Your task to perform on an android device: check out phone information Image 0: 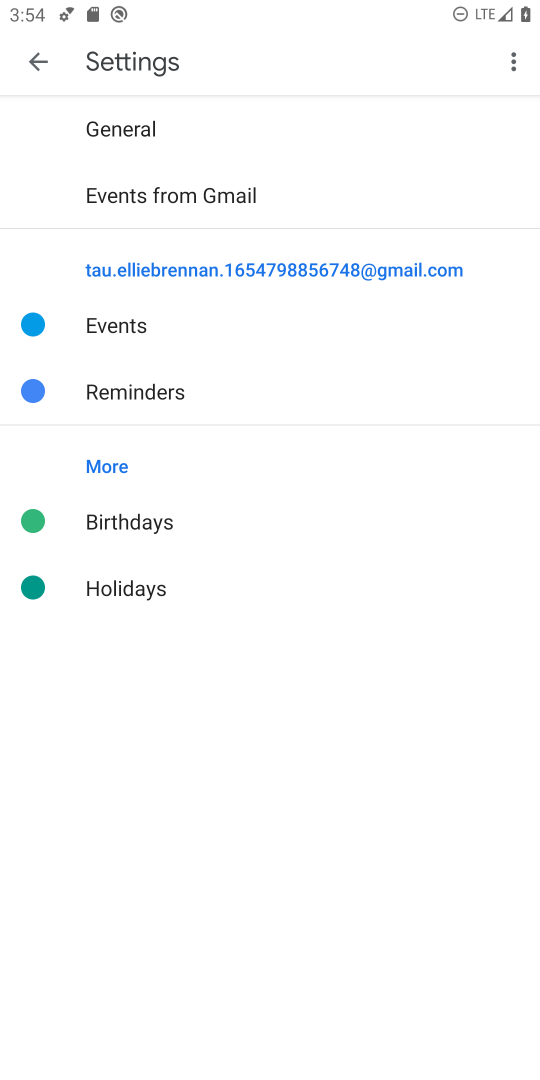
Step 0: press home button
Your task to perform on an android device: check out phone information Image 1: 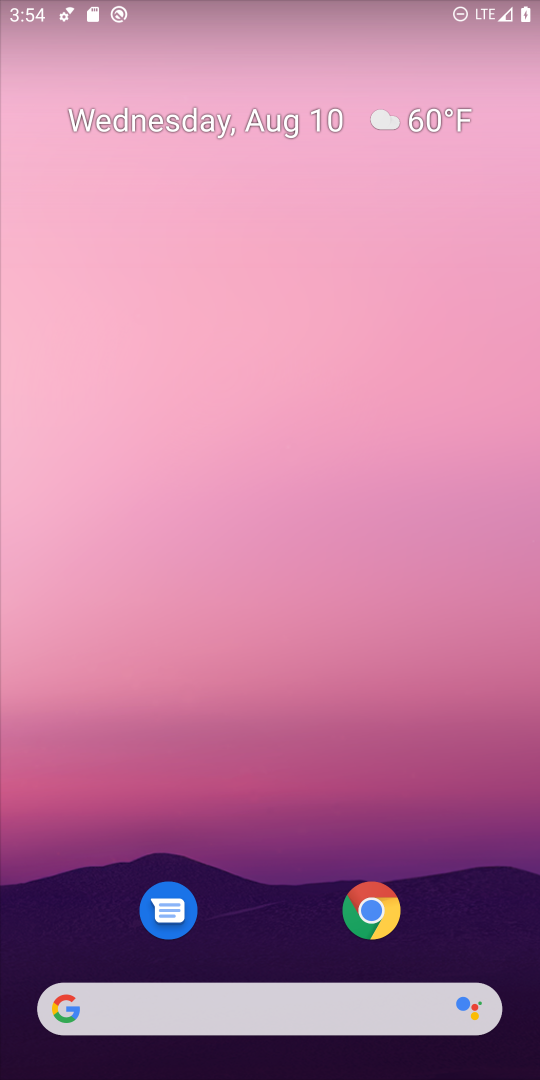
Step 1: drag from (296, 909) to (368, 154)
Your task to perform on an android device: check out phone information Image 2: 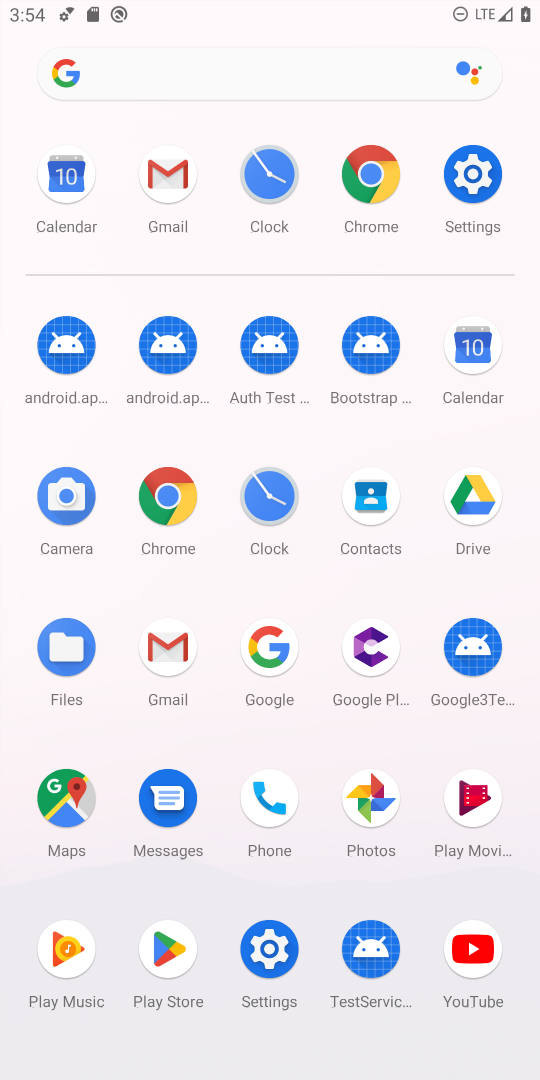
Step 2: click (462, 168)
Your task to perform on an android device: check out phone information Image 3: 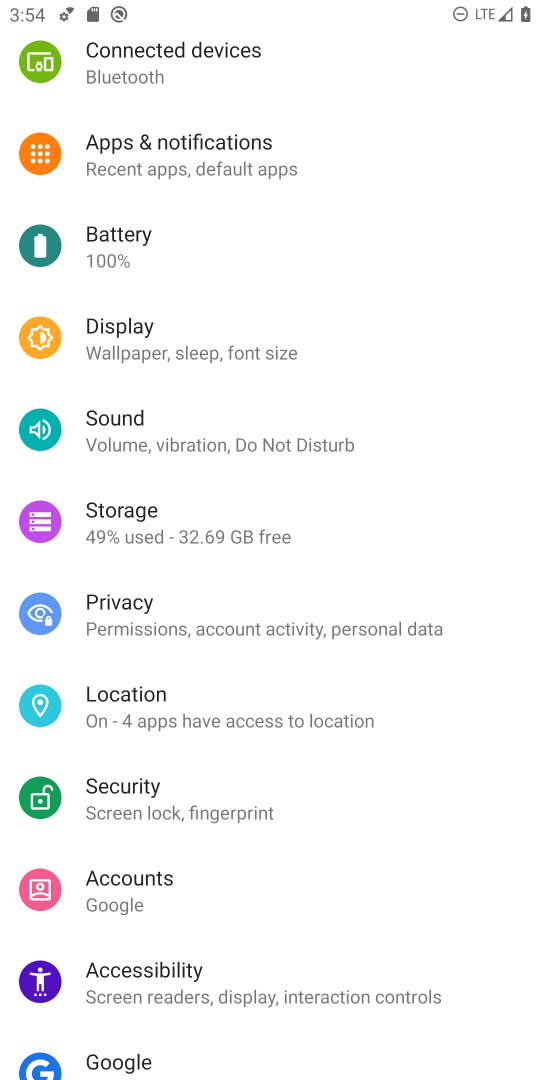
Step 3: drag from (267, 880) to (130, 95)
Your task to perform on an android device: check out phone information Image 4: 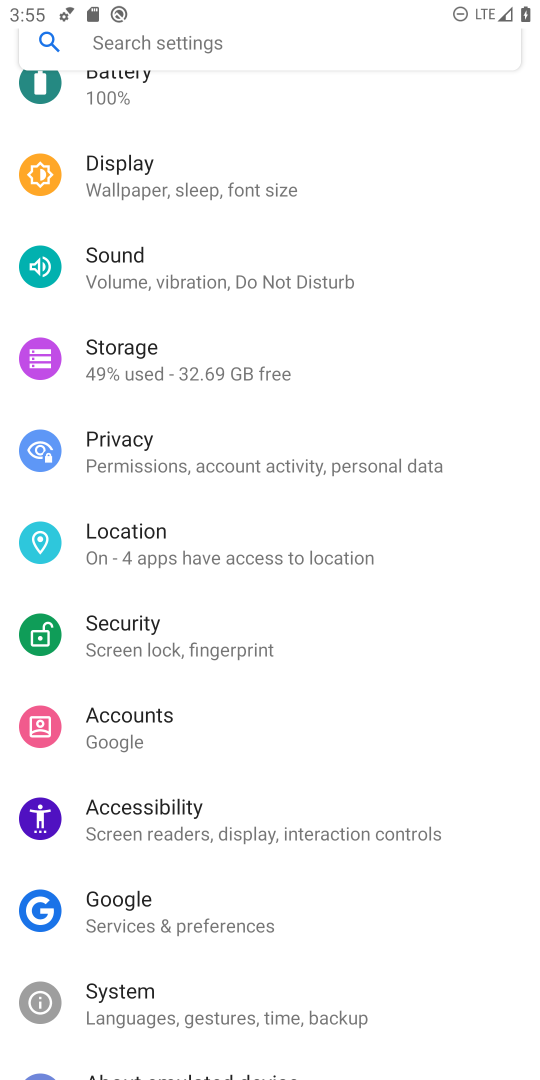
Step 4: drag from (404, 930) to (339, 482)
Your task to perform on an android device: check out phone information Image 5: 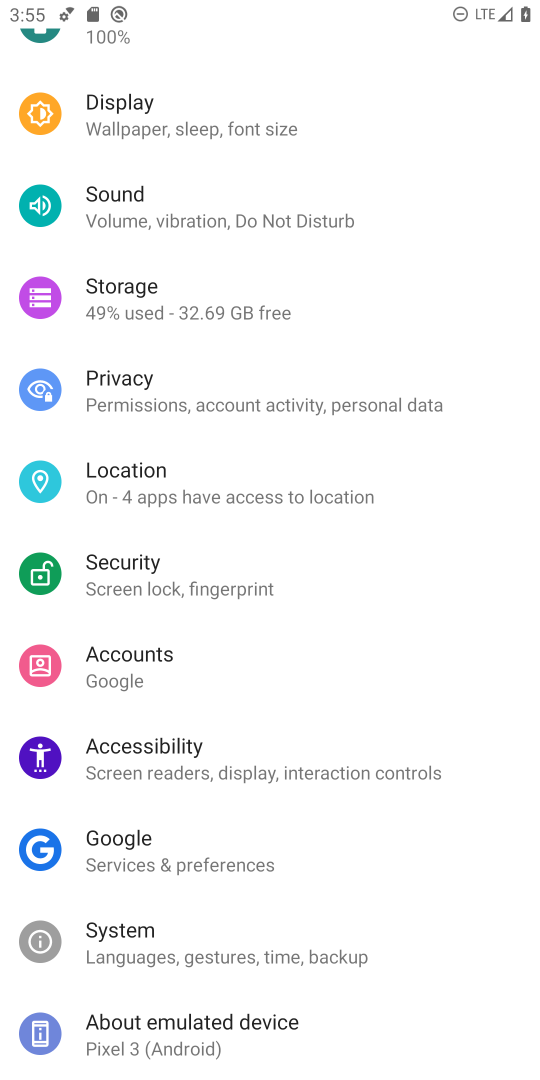
Step 5: click (147, 1028)
Your task to perform on an android device: check out phone information Image 6: 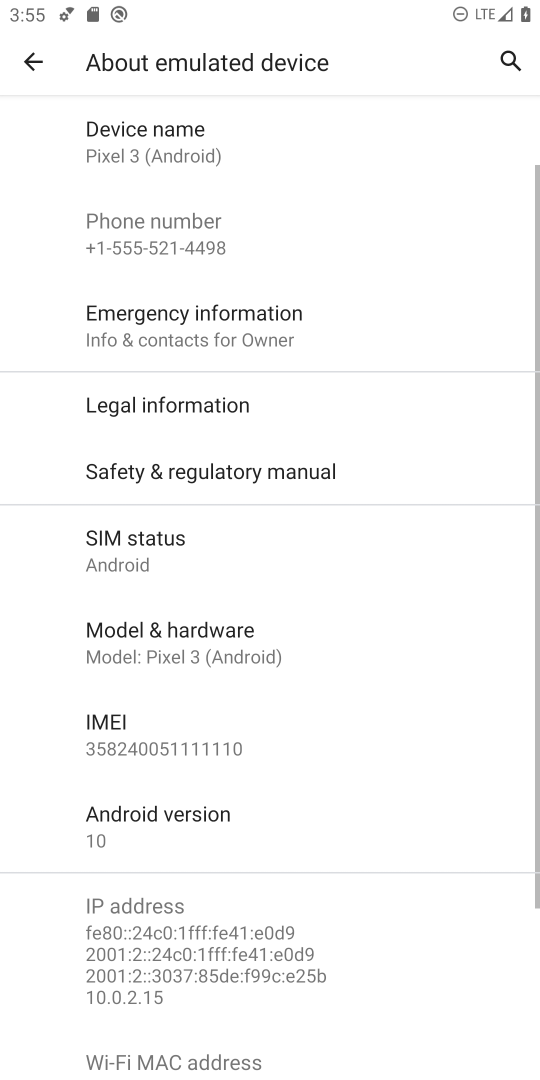
Step 6: click (121, 127)
Your task to perform on an android device: check out phone information Image 7: 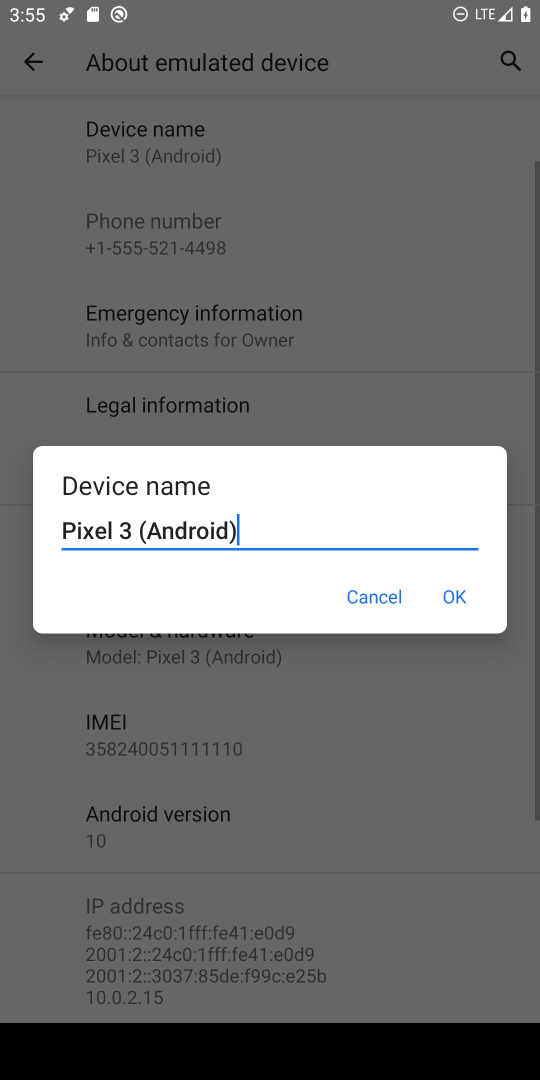
Step 7: click (454, 592)
Your task to perform on an android device: check out phone information Image 8: 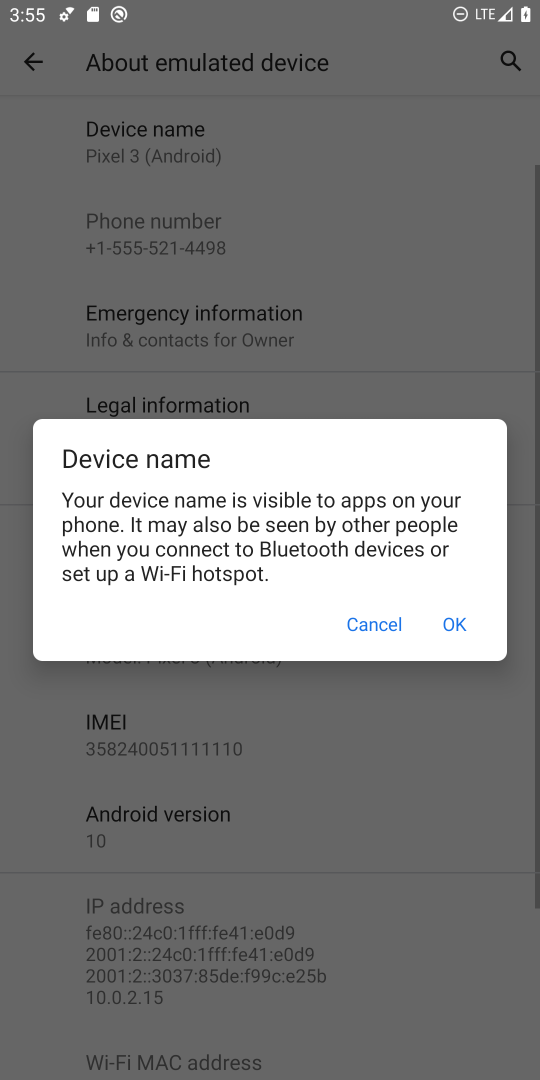
Step 8: click (459, 621)
Your task to perform on an android device: check out phone information Image 9: 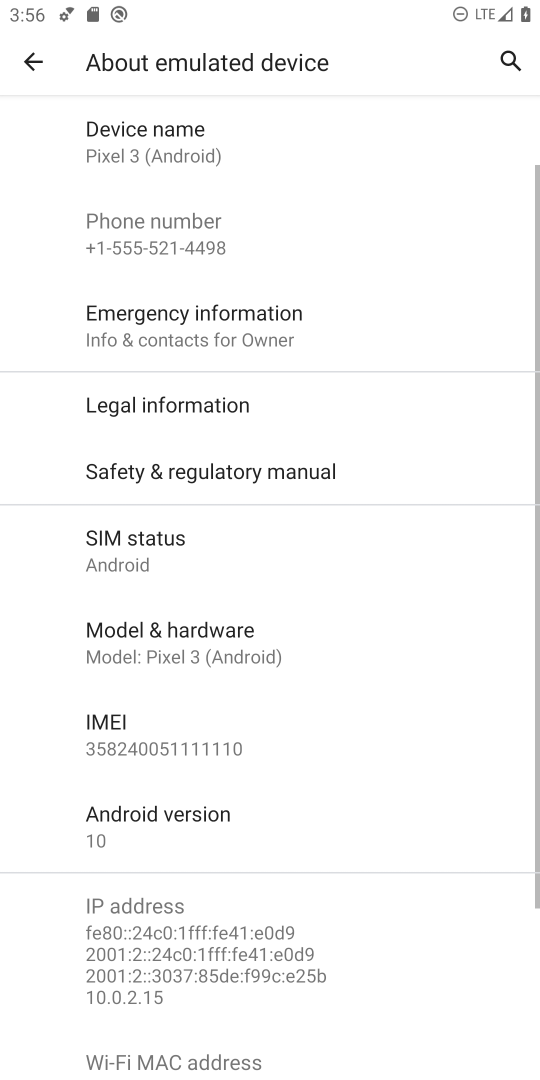
Step 9: task complete